Your task to perform on an android device: toggle pop-ups in chrome Image 0: 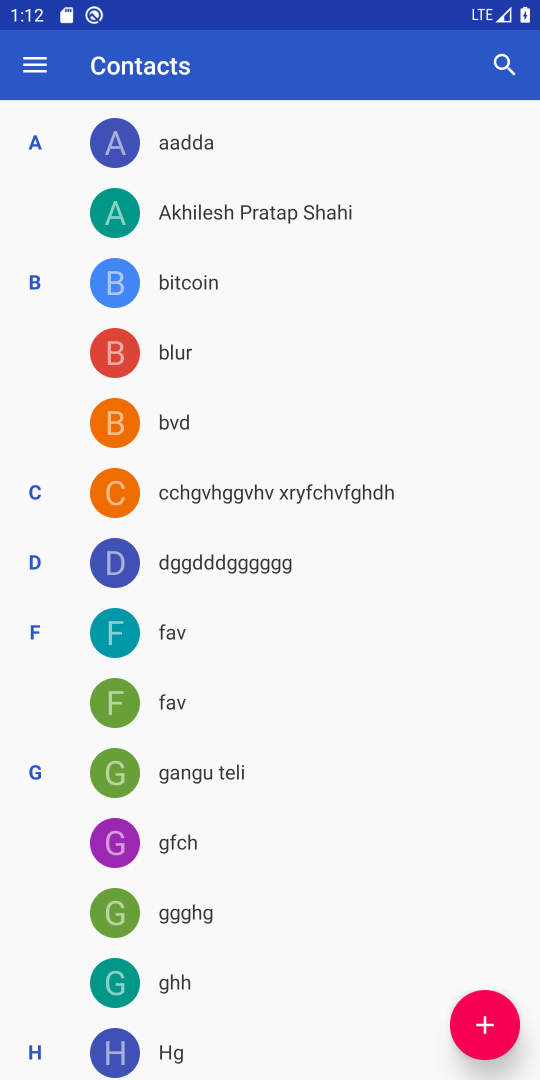
Step 0: press home button
Your task to perform on an android device: toggle pop-ups in chrome Image 1: 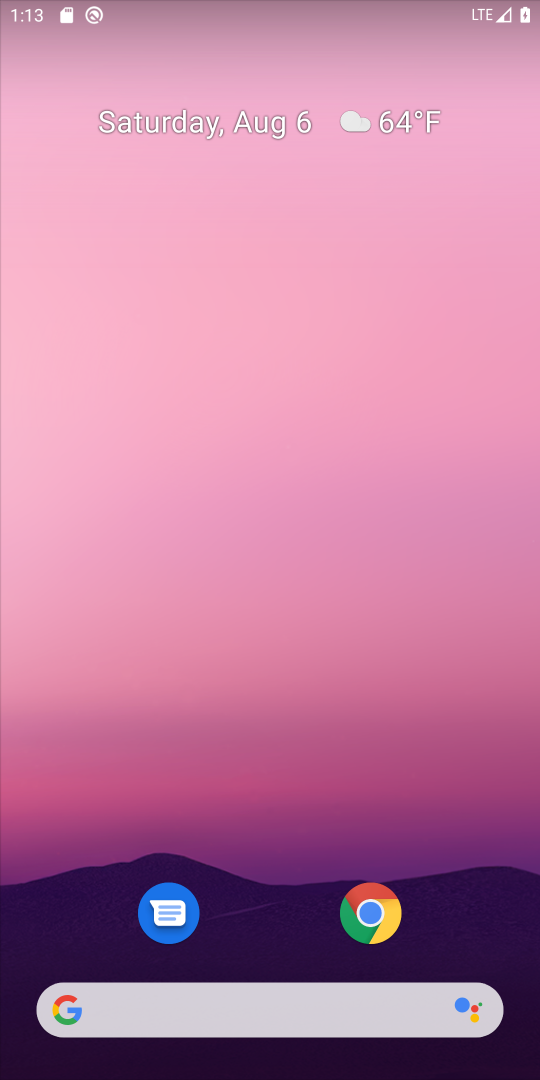
Step 1: drag from (270, 889) to (311, 189)
Your task to perform on an android device: toggle pop-ups in chrome Image 2: 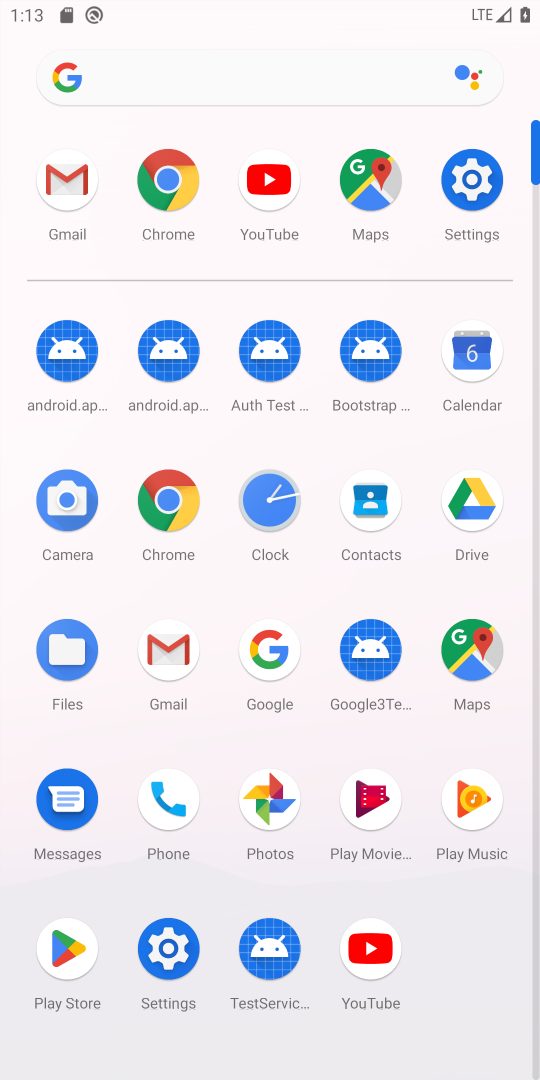
Step 2: click (170, 496)
Your task to perform on an android device: toggle pop-ups in chrome Image 3: 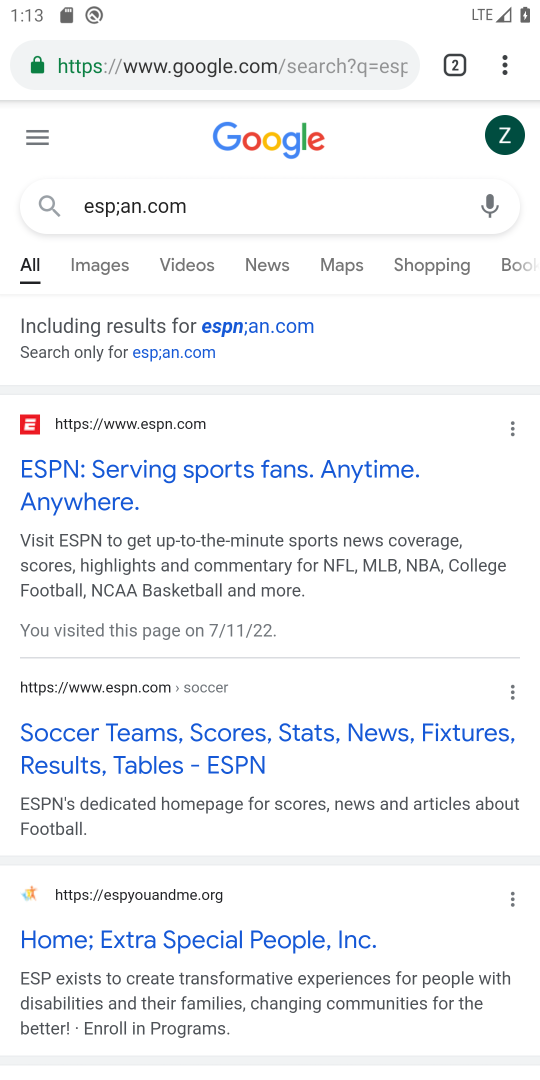
Step 3: click (496, 79)
Your task to perform on an android device: toggle pop-ups in chrome Image 4: 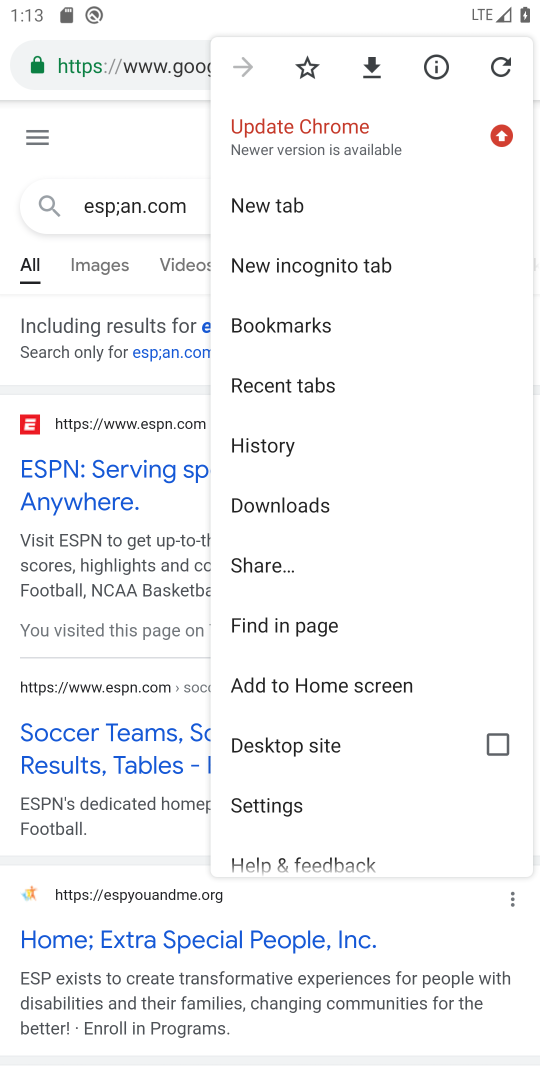
Step 4: click (276, 807)
Your task to perform on an android device: toggle pop-ups in chrome Image 5: 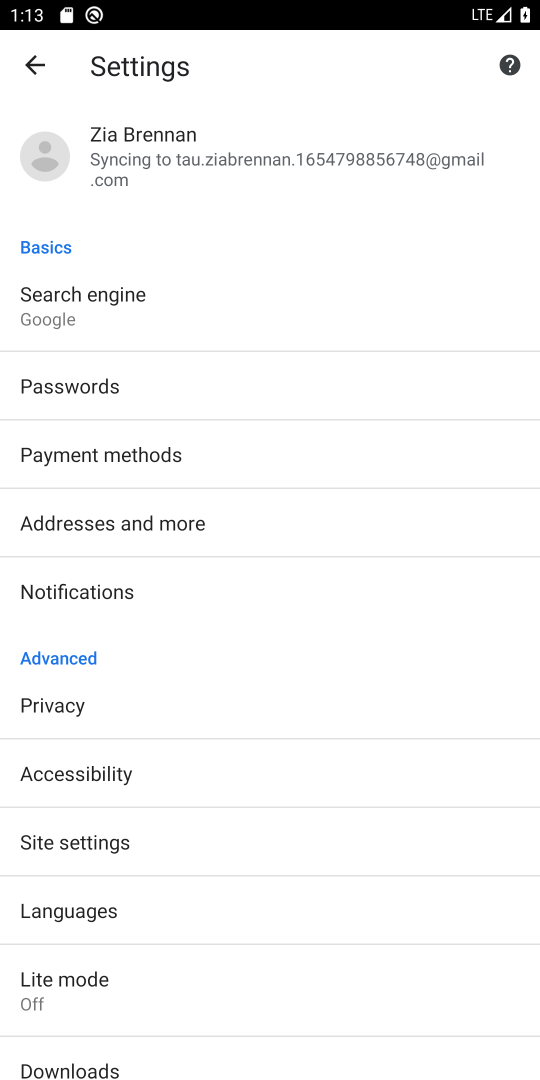
Step 5: click (290, 829)
Your task to perform on an android device: toggle pop-ups in chrome Image 6: 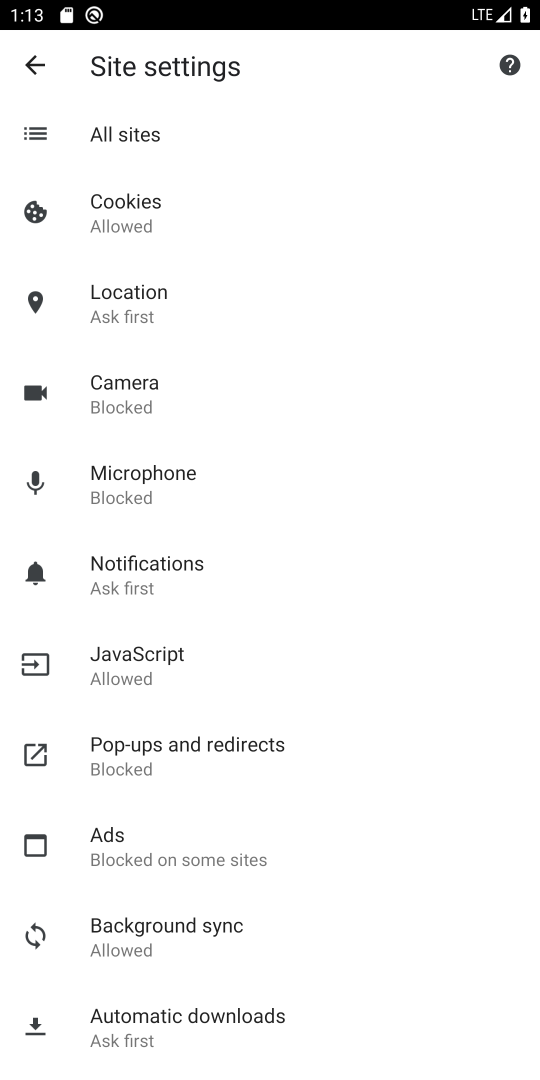
Step 6: drag from (438, 701) to (423, 363)
Your task to perform on an android device: toggle pop-ups in chrome Image 7: 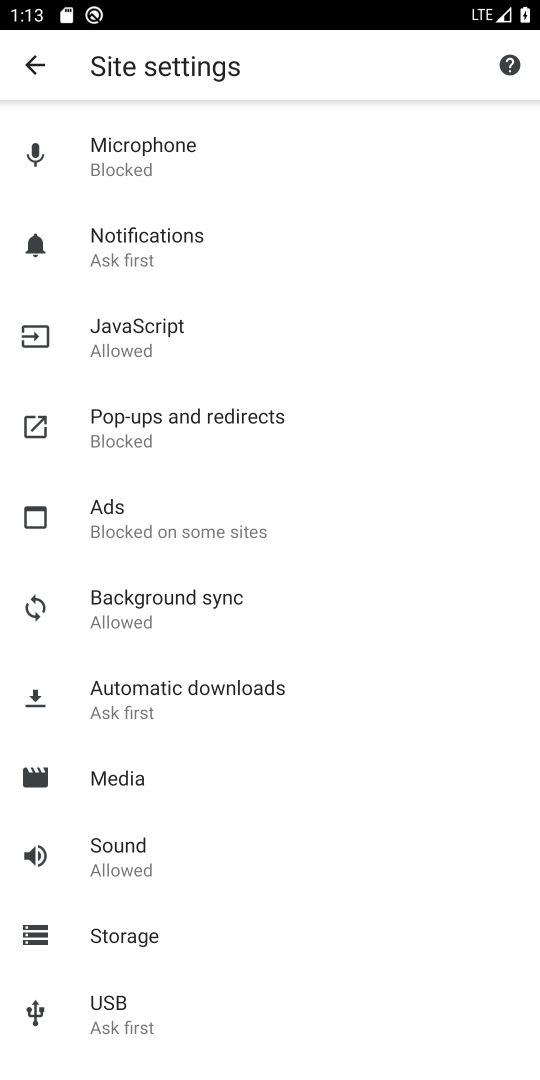
Step 7: click (206, 429)
Your task to perform on an android device: toggle pop-ups in chrome Image 8: 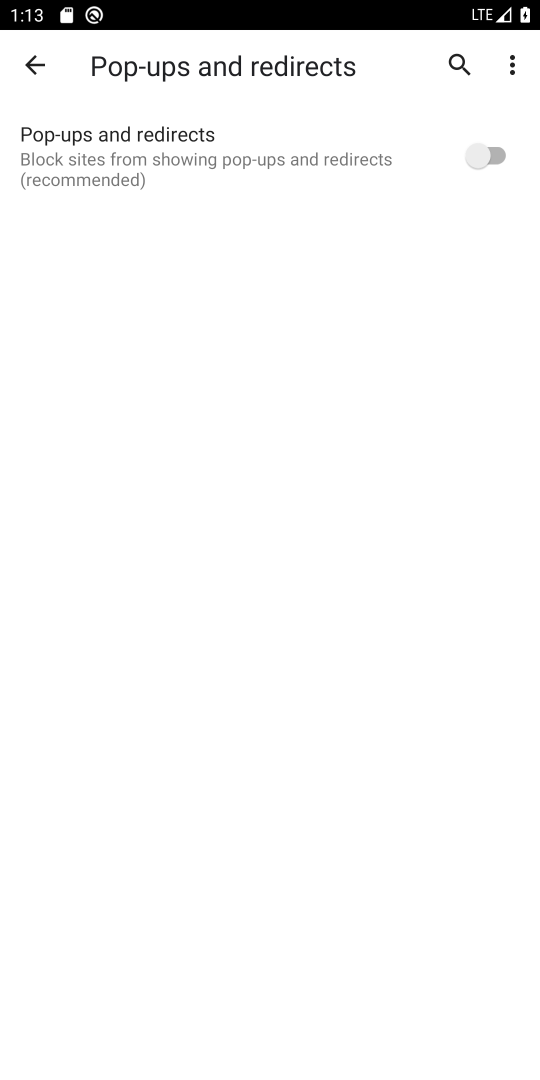
Step 8: click (480, 167)
Your task to perform on an android device: toggle pop-ups in chrome Image 9: 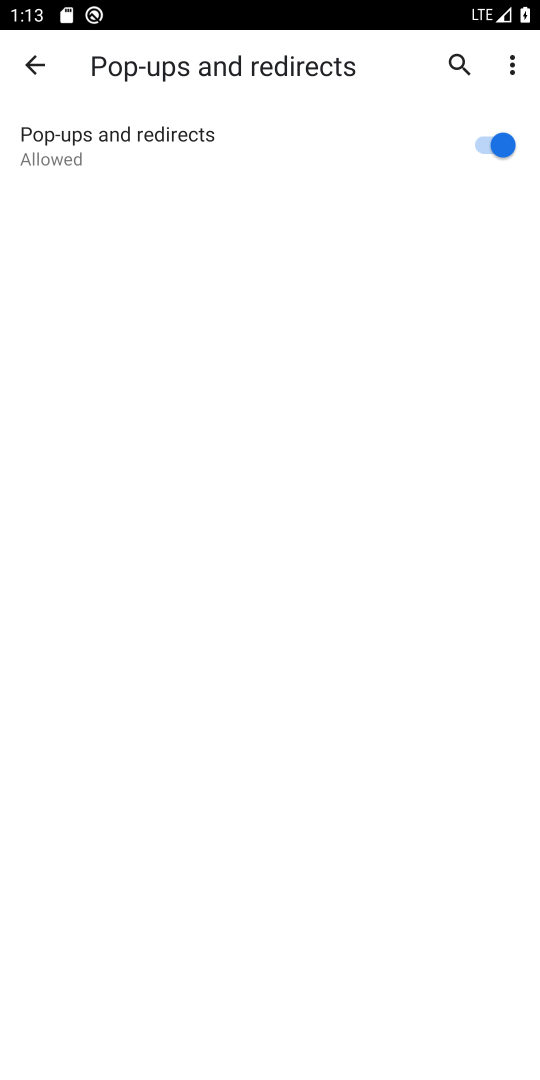
Step 9: task complete